Your task to perform on an android device: Go to Yahoo.com Image 0: 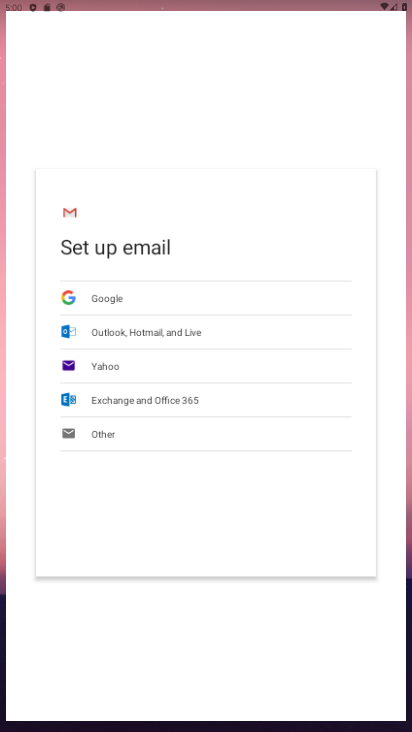
Step 0: click (222, 514)
Your task to perform on an android device: Go to Yahoo.com Image 1: 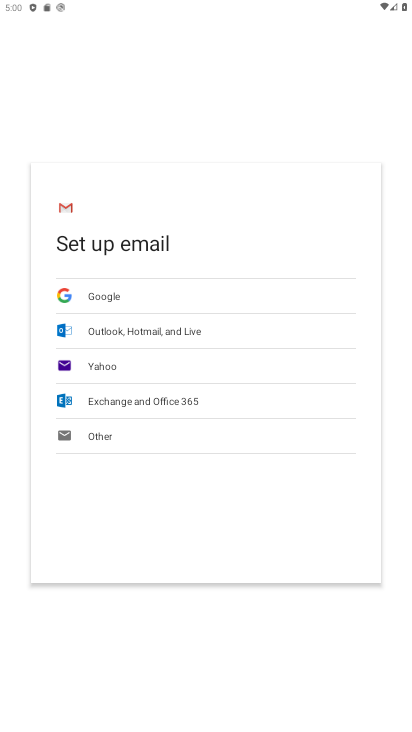
Step 1: press home button
Your task to perform on an android device: Go to Yahoo.com Image 2: 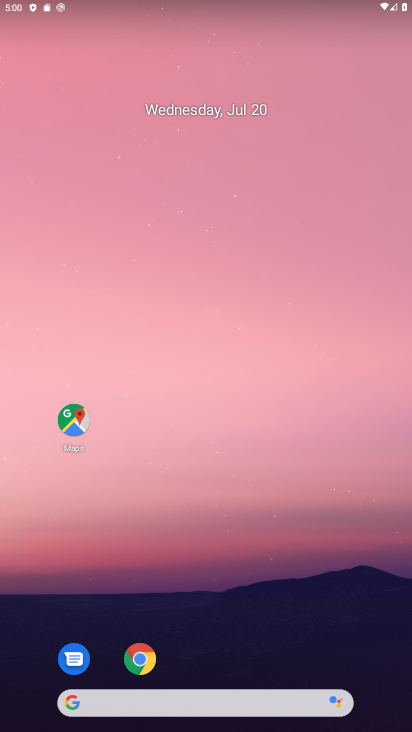
Step 2: drag from (245, 672) to (204, 307)
Your task to perform on an android device: Go to Yahoo.com Image 3: 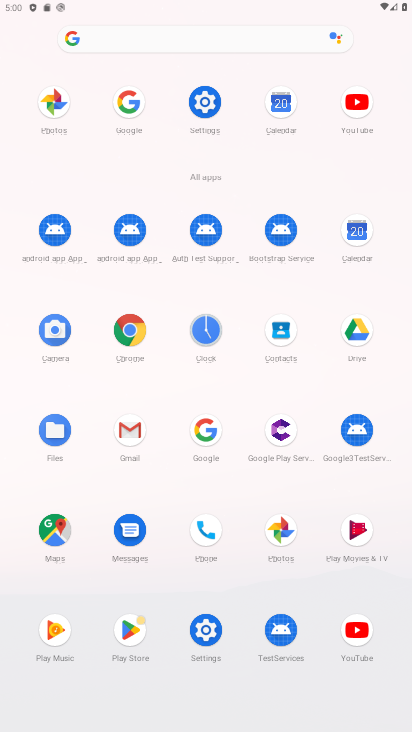
Step 3: click (132, 334)
Your task to perform on an android device: Go to Yahoo.com Image 4: 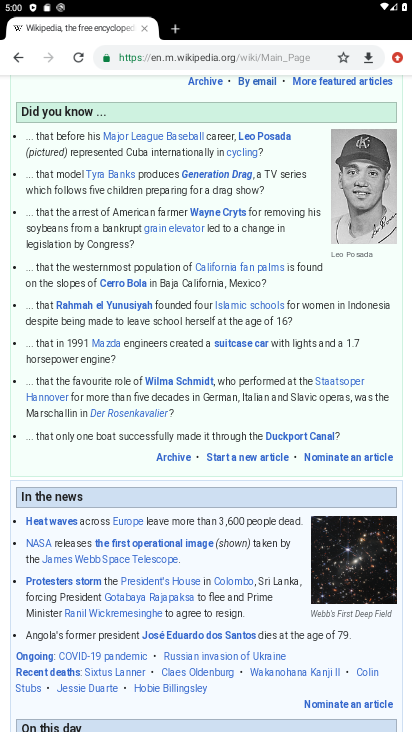
Step 4: drag from (158, 54) to (214, 367)
Your task to perform on an android device: Go to Yahoo.com Image 5: 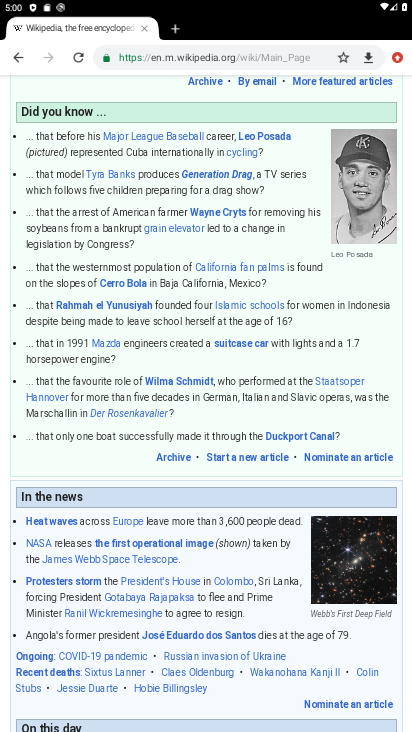
Step 5: click (143, 27)
Your task to perform on an android device: Go to Yahoo.com Image 6: 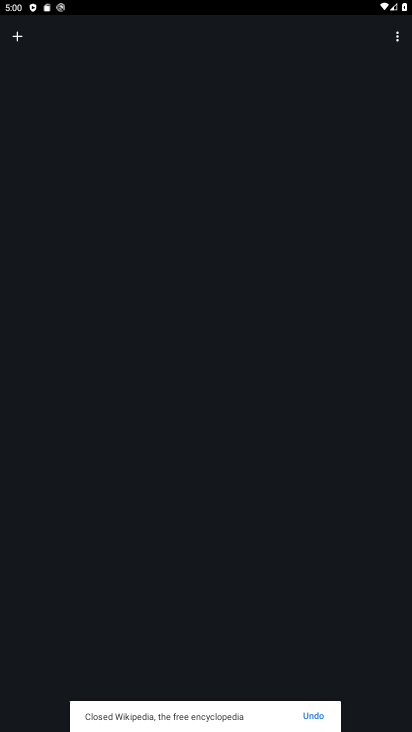
Step 6: click (10, 33)
Your task to perform on an android device: Go to Yahoo.com Image 7: 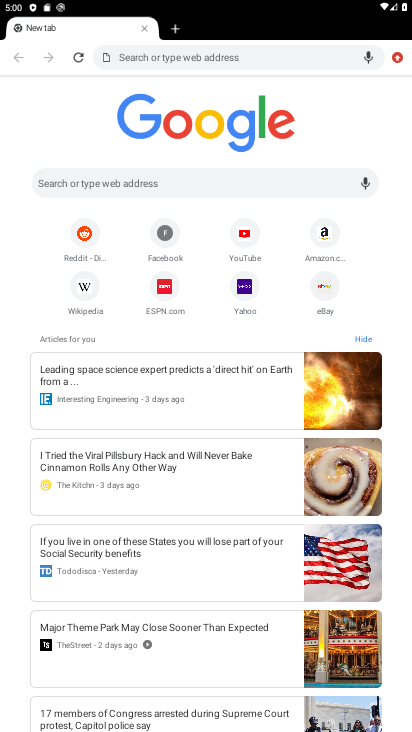
Step 7: click (241, 291)
Your task to perform on an android device: Go to Yahoo.com Image 8: 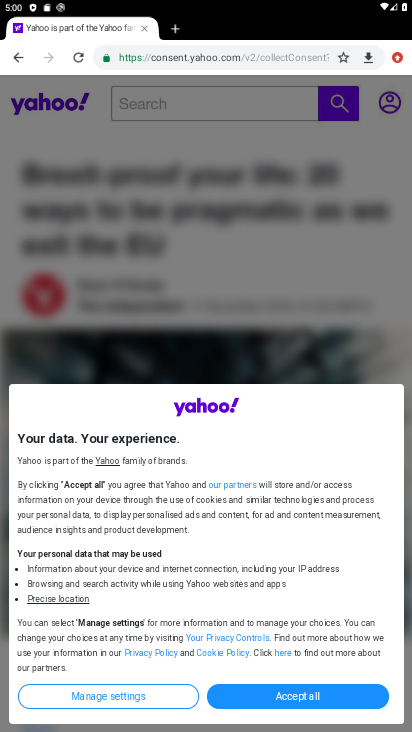
Step 8: task complete